Your task to perform on an android device: turn off wifi Image 0: 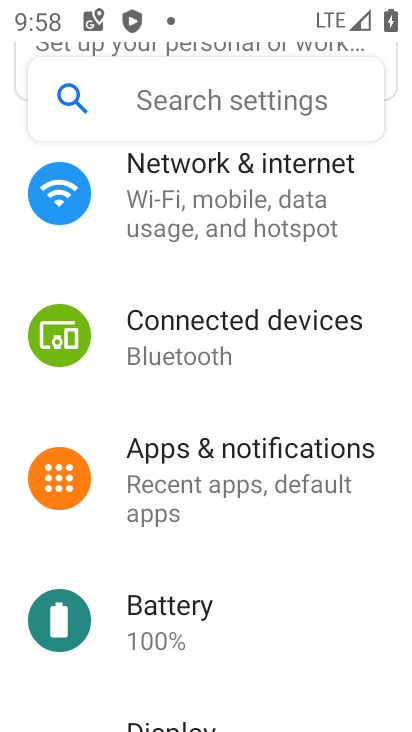
Step 0: press home button
Your task to perform on an android device: turn off wifi Image 1: 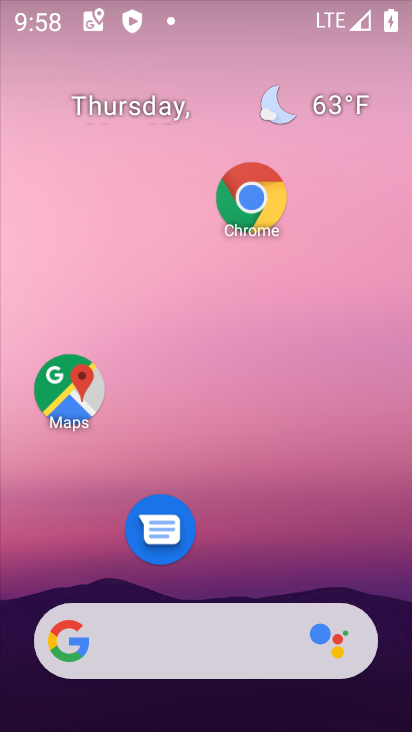
Step 1: drag from (269, 658) to (270, 77)
Your task to perform on an android device: turn off wifi Image 2: 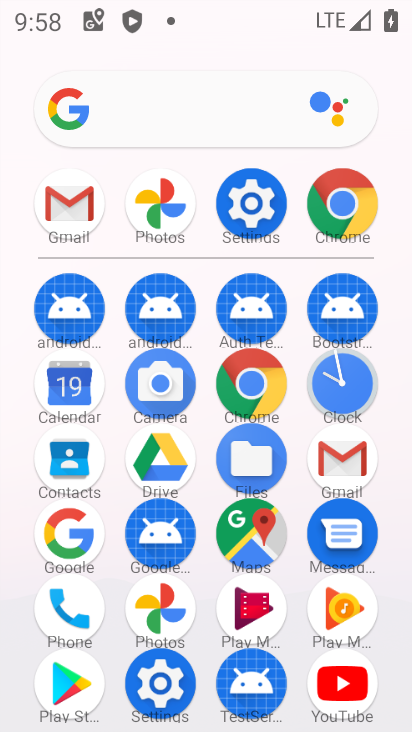
Step 2: click (268, 222)
Your task to perform on an android device: turn off wifi Image 3: 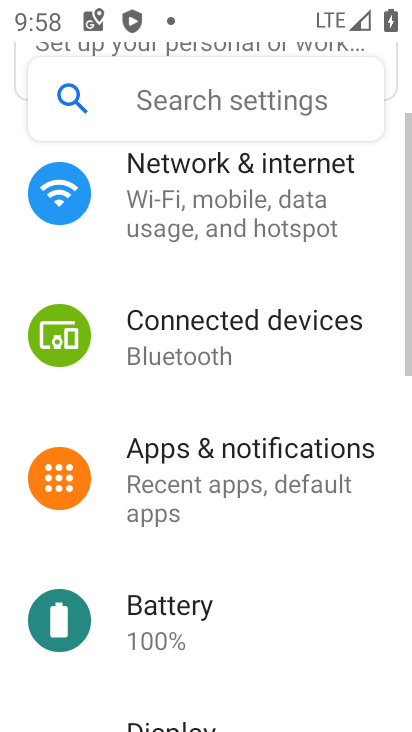
Step 3: drag from (270, 234) to (285, 603)
Your task to perform on an android device: turn off wifi Image 4: 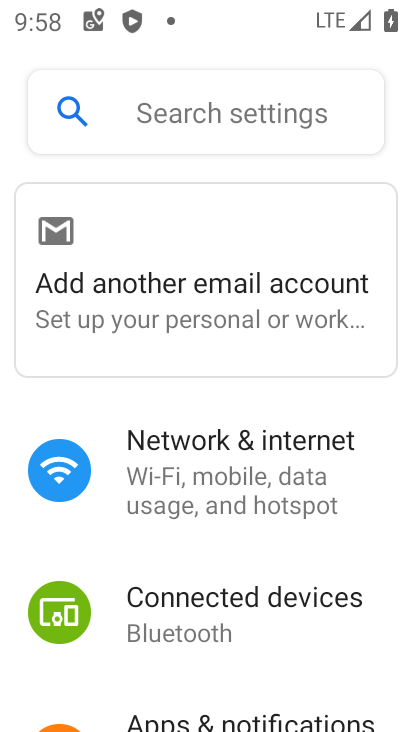
Step 4: click (221, 503)
Your task to perform on an android device: turn off wifi Image 5: 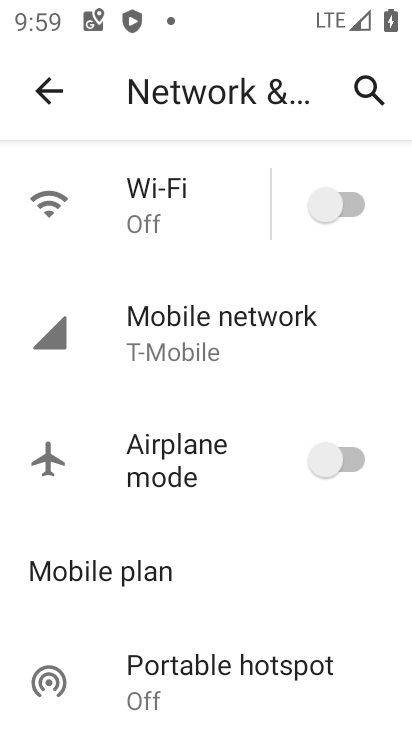
Step 5: task complete